Your task to perform on an android device: check out phone information Image 0: 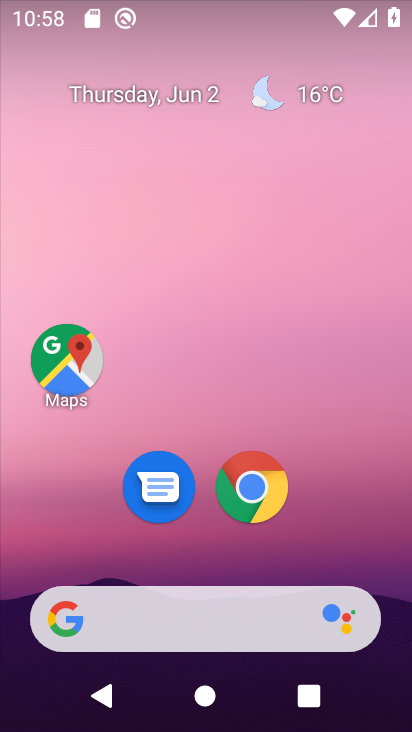
Step 0: drag from (328, 536) to (243, 0)
Your task to perform on an android device: check out phone information Image 1: 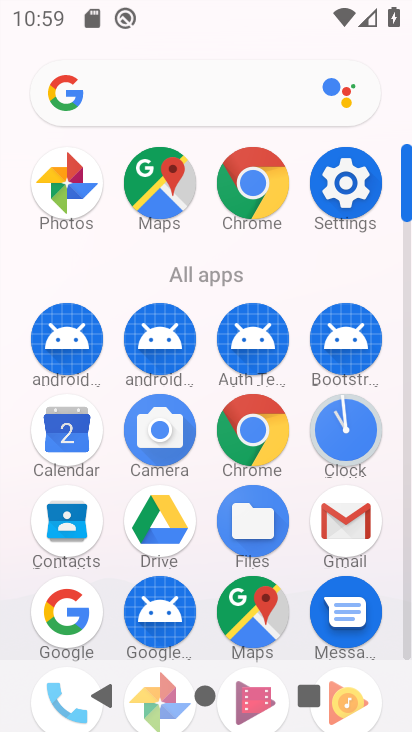
Step 1: click (344, 180)
Your task to perform on an android device: check out phone information Image 2: 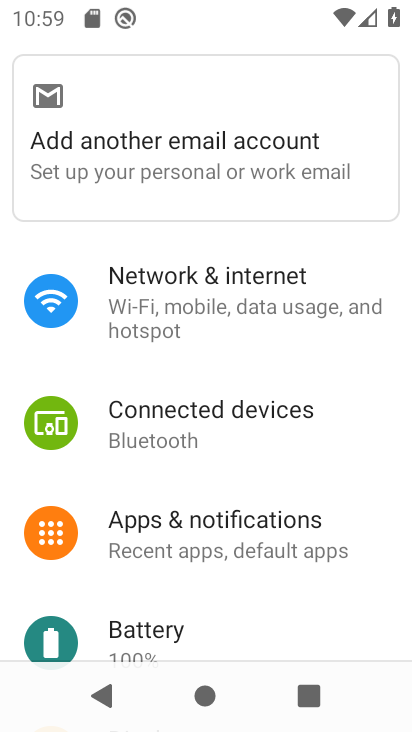
Step 2: drag from (187, 367) to (268, 269)
Your task to perform on an android device: check out phone information Image 3: 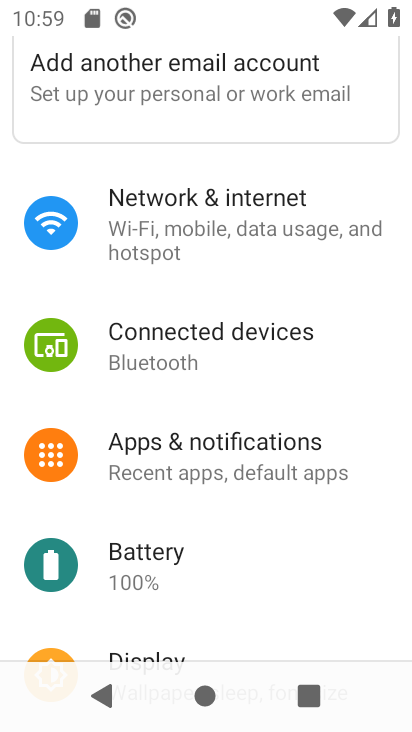
Step 3: drag from (164, 399) to (248, 299)
Your task to perform on an android device: check out phone information Image 4: 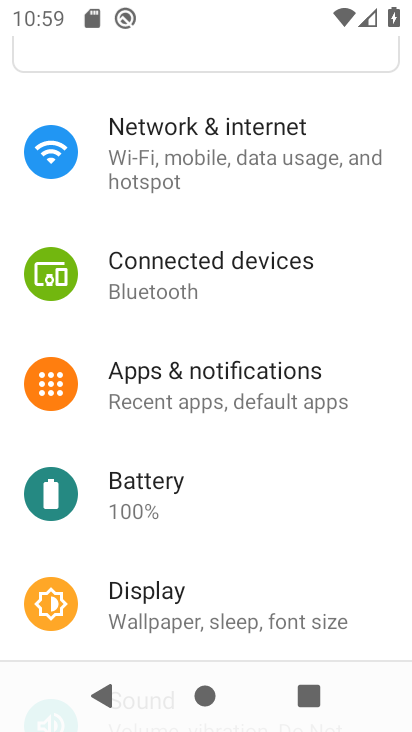
Step 4: drag from (145, 436) to (280, 298)
Your task to perform on an android device: check out phone information Image 5: 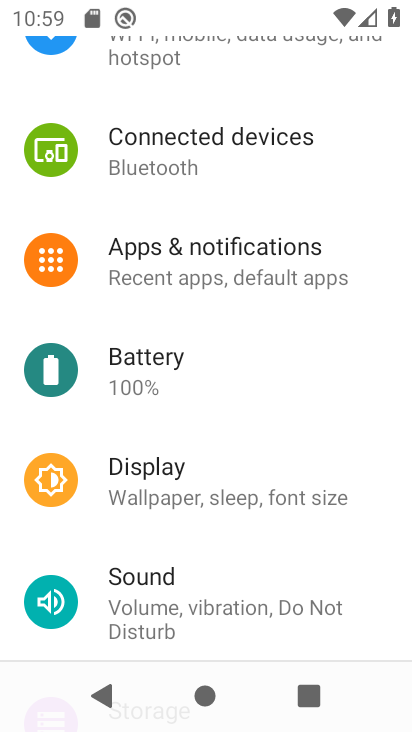
Step 5: drag from (138, 414) to (258, 292)
Your task to perform on an android device: check out phone information Image 6: 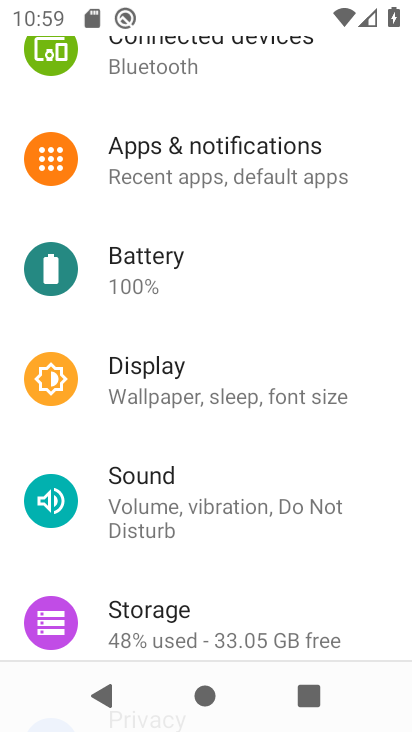
Step 6: drag from (129, 427) to (260, 295)
Your task to perform on an android device: check out phone information Image 7: 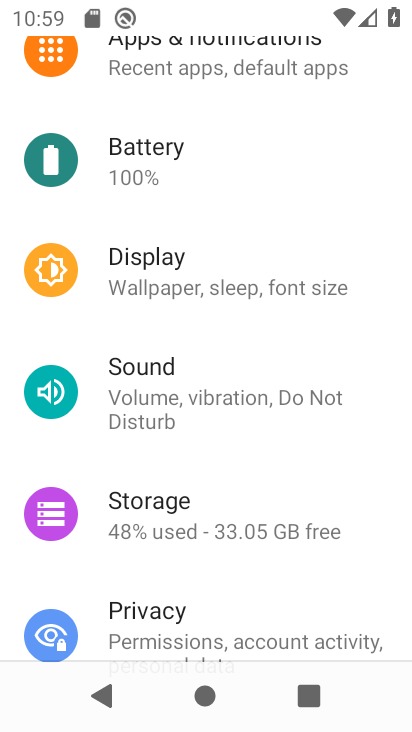
Step 7: drag from (148, 333) to (237, 240)
Your task to perform on an android device: check out phone information Image 8: 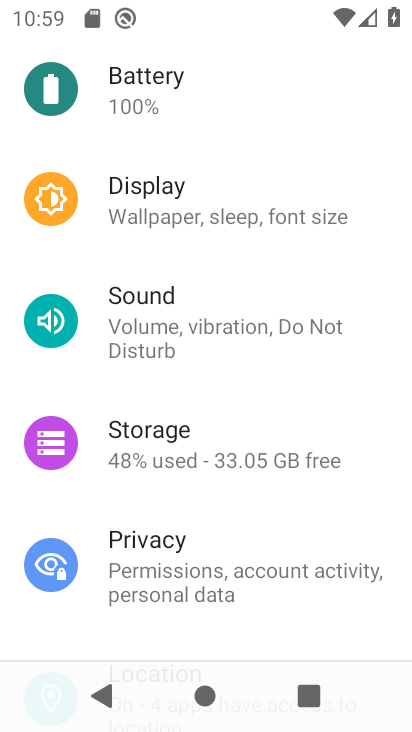
Step 8: drag from (121, 379) to (244, 256)
Your task to perform on an android device: check out phone information Image 9: 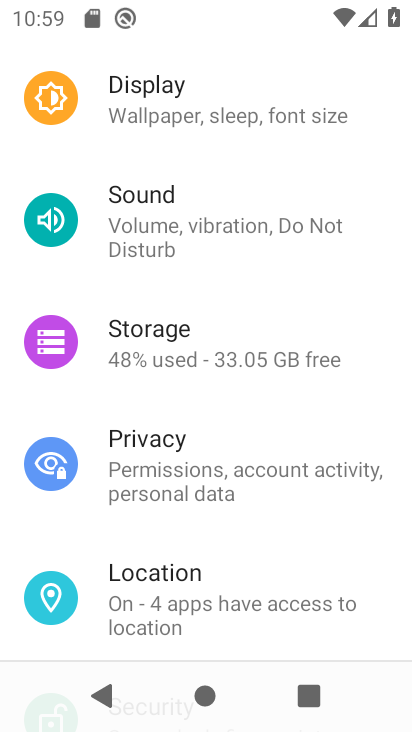
Step 9: drag from (126, 398) to (223, 299)
Your task to perform on an android device: check out phone information Image 10: 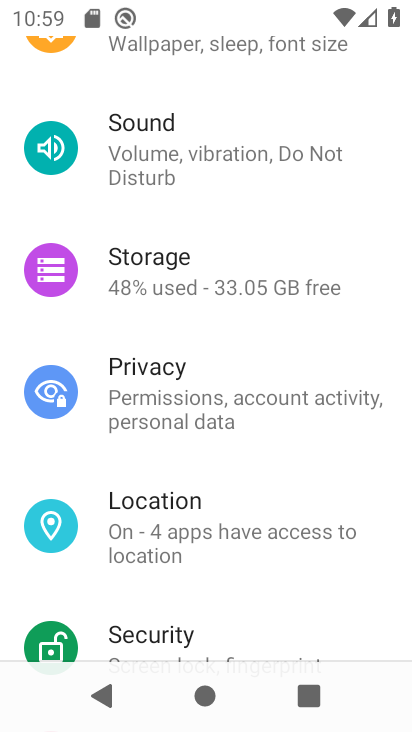
Step 10: drag from (125, 454) to (236, 340)
Your task to perform on an android device: check out phone information Image 11: 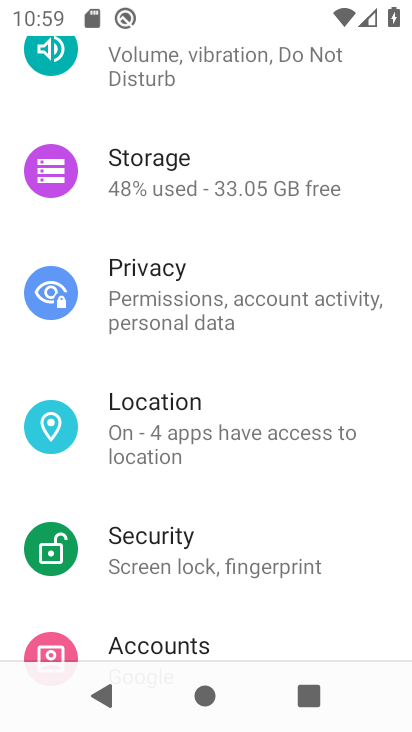
Step 11: drag from (131, 362) to (236, 255)
Your task to perform on an android device: check out phone information Image 12: 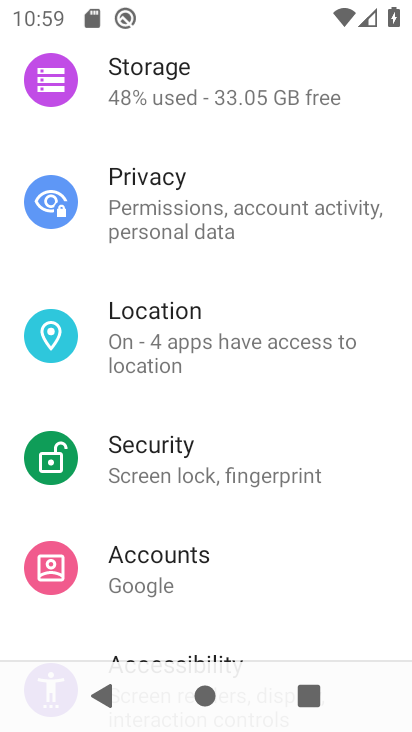
Step 12: drag from (132, 374) to (233, 271)
Your task to perform on an android device: check out phone information Image 13: 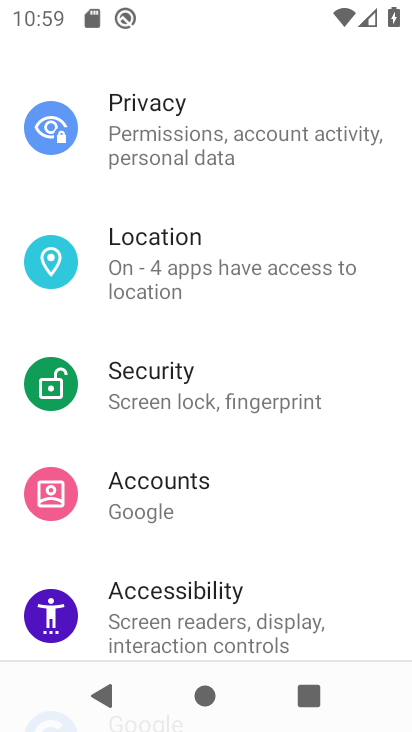
Step 13: drag from (140, 324) to (252, 209)
Your task to perform on an android device: check out phone information Image 14: 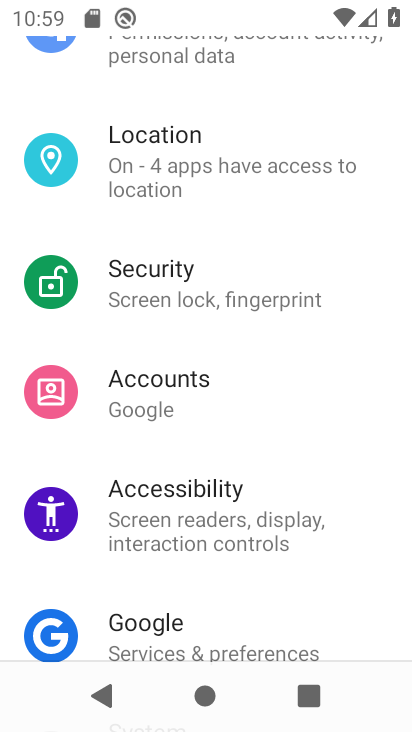
Step 14: drag from (133, 342) to (254, 227)
Your task to perform on an android device: check out phone information Image 15: 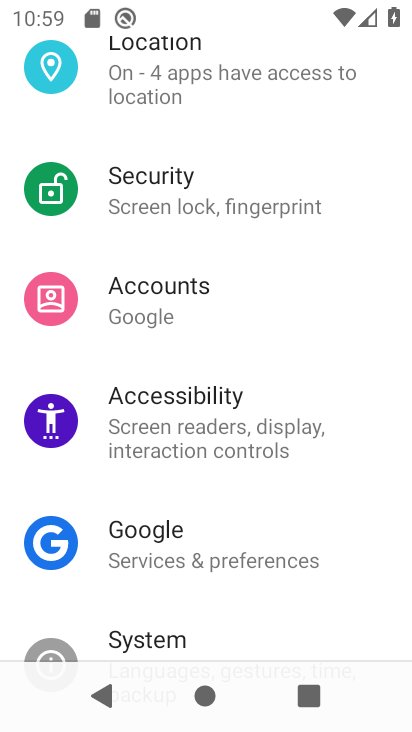
Step 15: drag from (125, 362) to (267, 218)
Your task to perform on an android device: check out phone information Image 16: 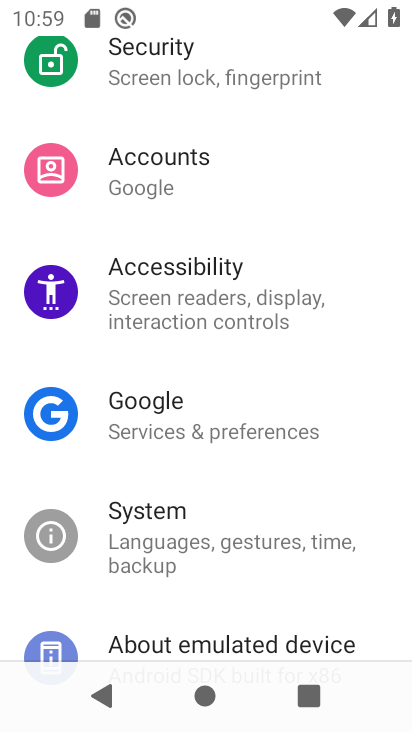
Step 16: drag from (125, 368) to (265, 229)
Your task to perform on an android device: check out phone information Image 17: 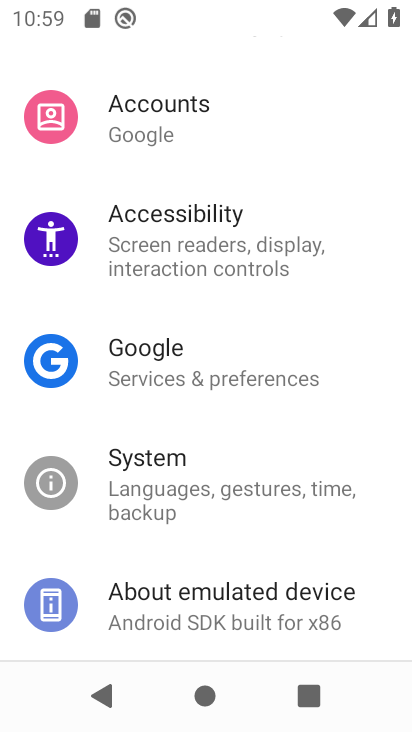
Step 17: click (245, 599)
Your task to perform on an android device: check out phone information Image 18: 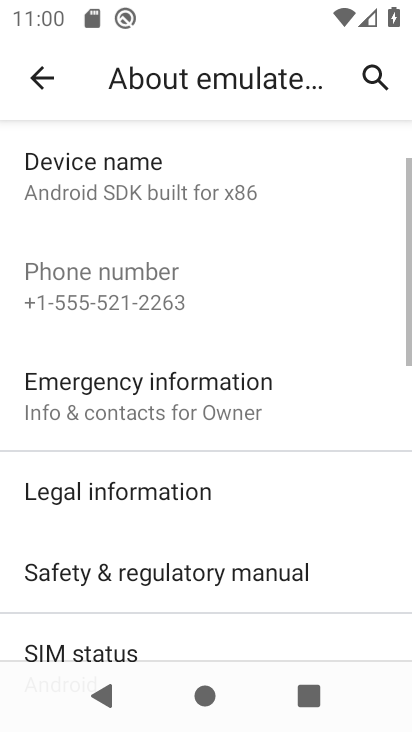
Step 18: task complete